Your task to perform on an android device: allow notifications from all sites in the chrome app Image 0: 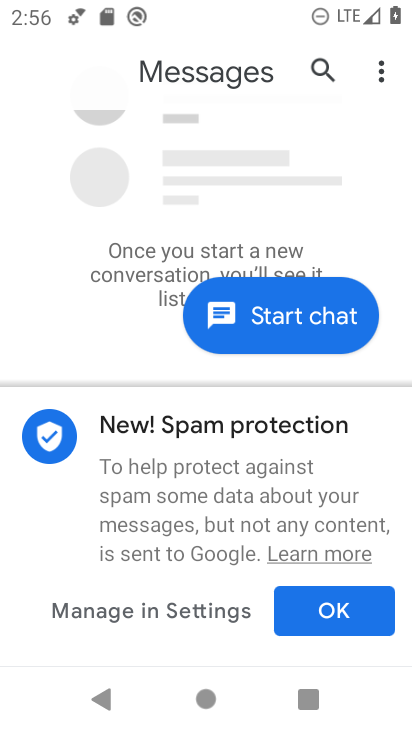
Step 0: press home button
Your task to perform on an android device: allow notifications from all sites in the chrome app Image 1: 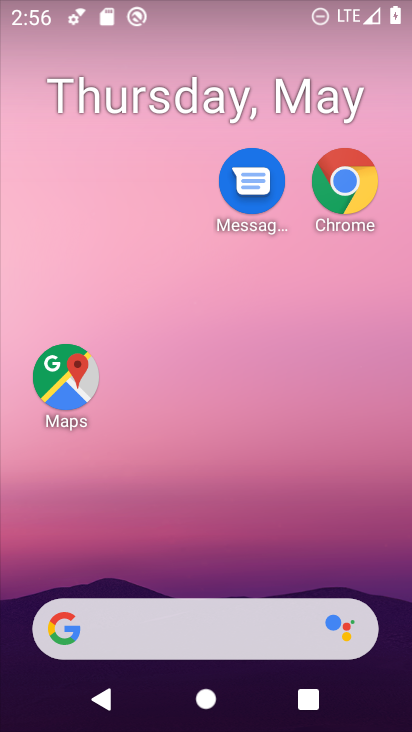
Step 1: drag from (225, 656) to (235, 57)
Your task to perform on an android device: allow notifications from all sites in the chrome app Image 2: 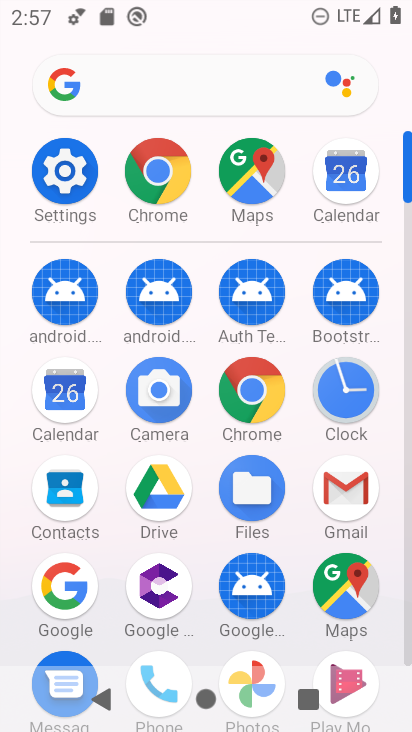
Step 2: click (250, 387)
Your task to perform on an android device: allow notifications from all sites in the chrome app Image 3: 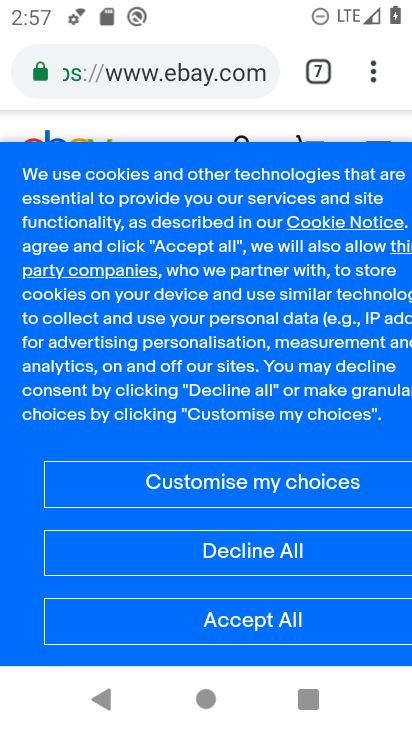
Step 3: drag from (360, 55) to (122, 509)
Your task to perform on an android device: allow notifications from all sites in the chrome app Image 4: 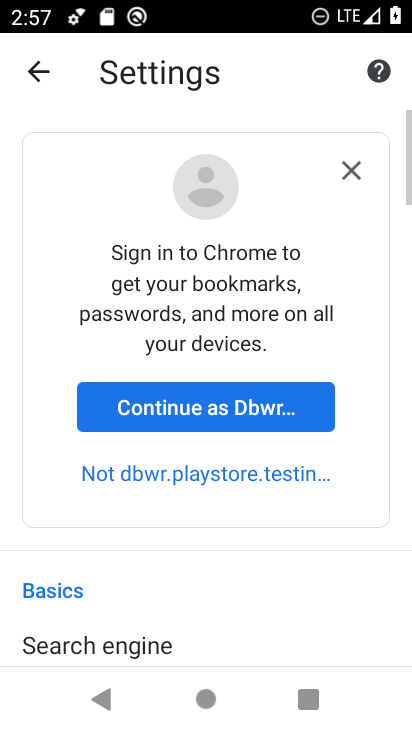
Step 4: drag from (242, 623) to (271, 76)
Your task to perform on an android device: allow notifications from all sites in the chrome app Image 5: 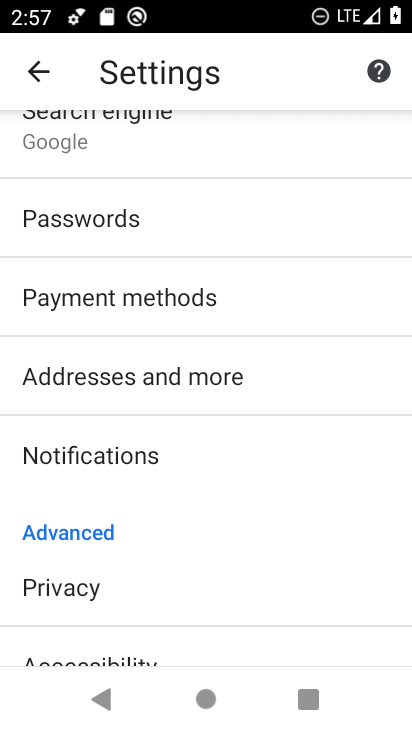
Step 5: drag from (212, 602) to (231, 245)
Your task to perform on an android device: allow notifications from all sites in the chrome app Image 6: 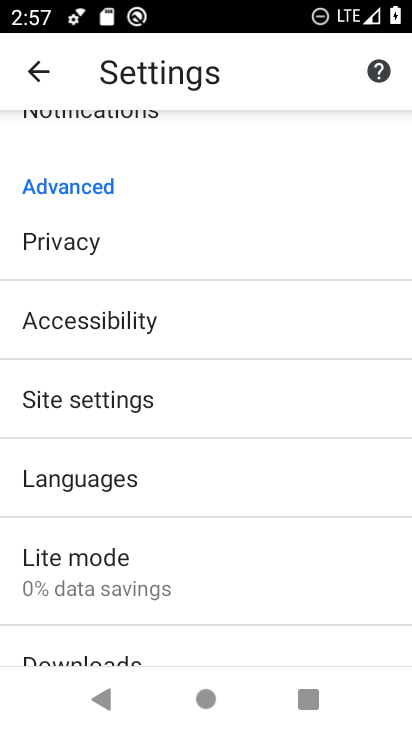
Step 6: drag from (124, 603) to (154, 394)
Your task to perform on an android device: allow notifications from all sites in the chrome app Image 7: 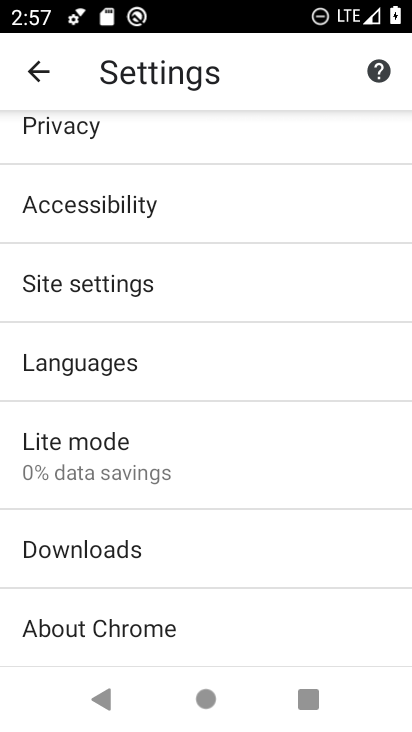
Step 7: click (150, 309)
Your task to perform on an android device: allow notifications from all sites in the chrome app Image 8: 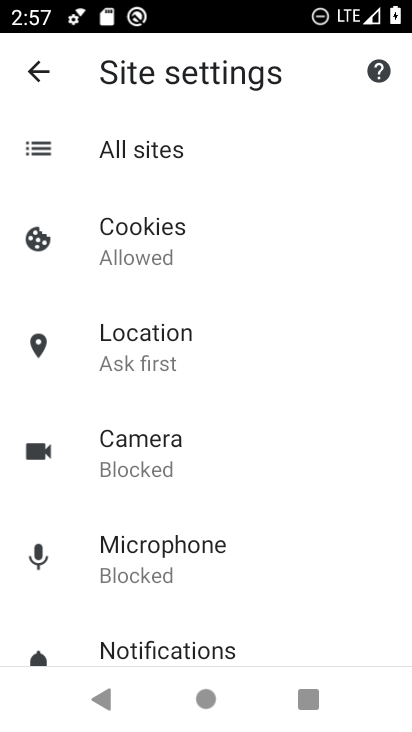
Step 8: drag from (221, 607) to (210, 403)
Your task to perform on an android device: allow notifications from all sites in the chrome app Image 9: 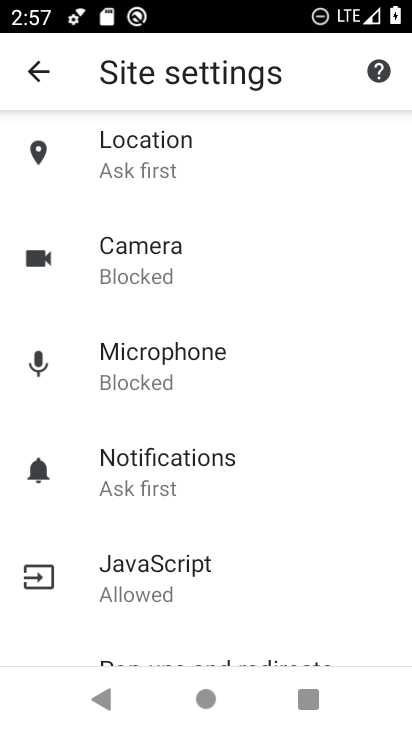
Step 9: click (196, 477)
Your task to perform on an android device: allow notifications from all sites in the chrome app Image 10: 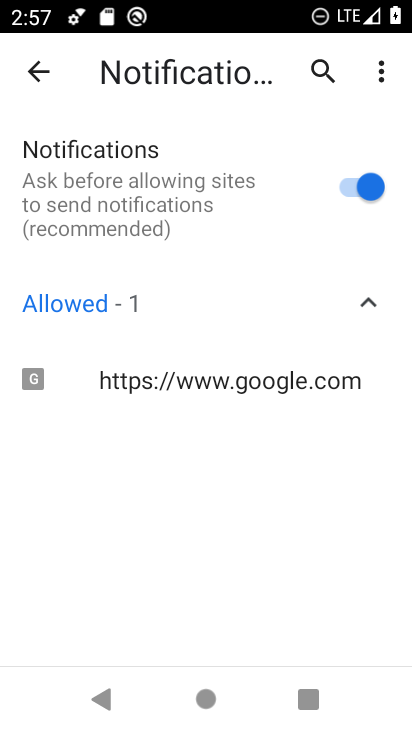
Step 10: task complete